Your task to perform on an android device: Open location settings Image 0: 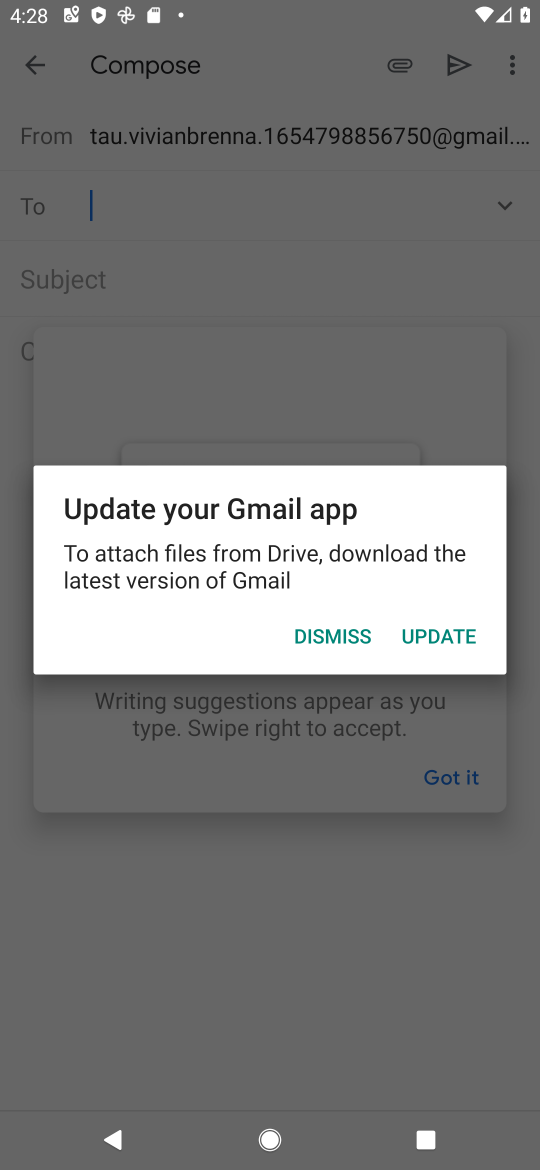
Step 0: press home button
Your task to perform on an android device: Open location settings Image 1: 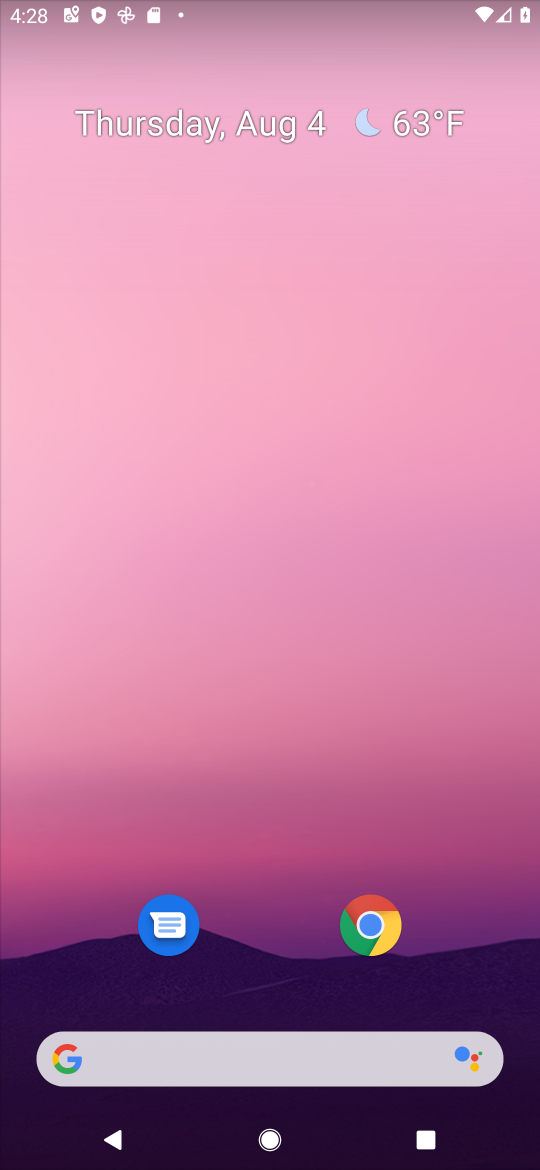
Step 1: drag from (272, 981) to (247, 184)
Your task to perform on an android device: Open location settings Image 2: 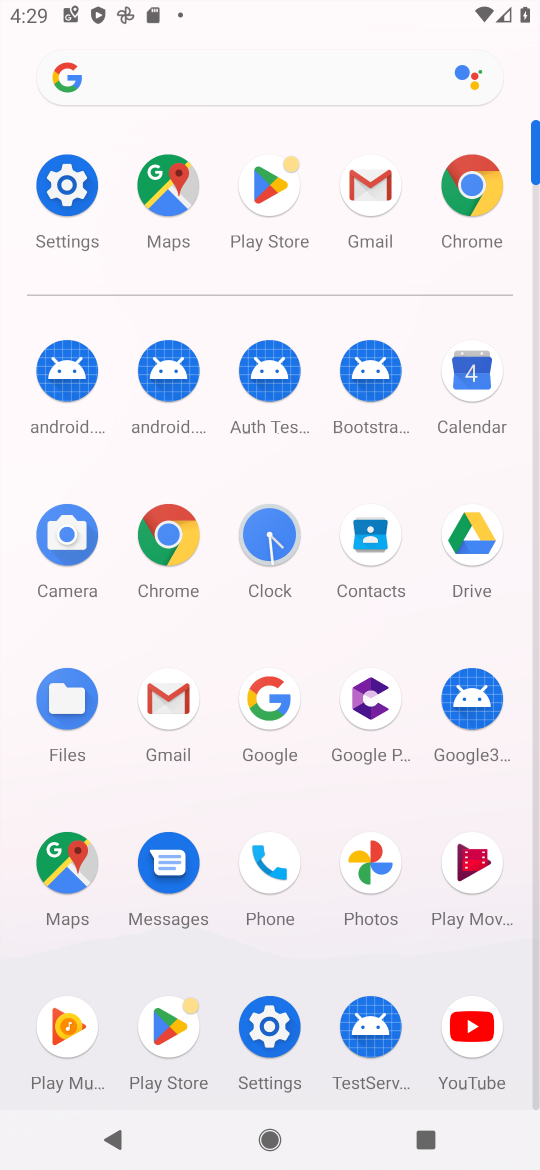
Step 2: click (62, 173)
Your task to perform on an android device: Open location settings Image 3: 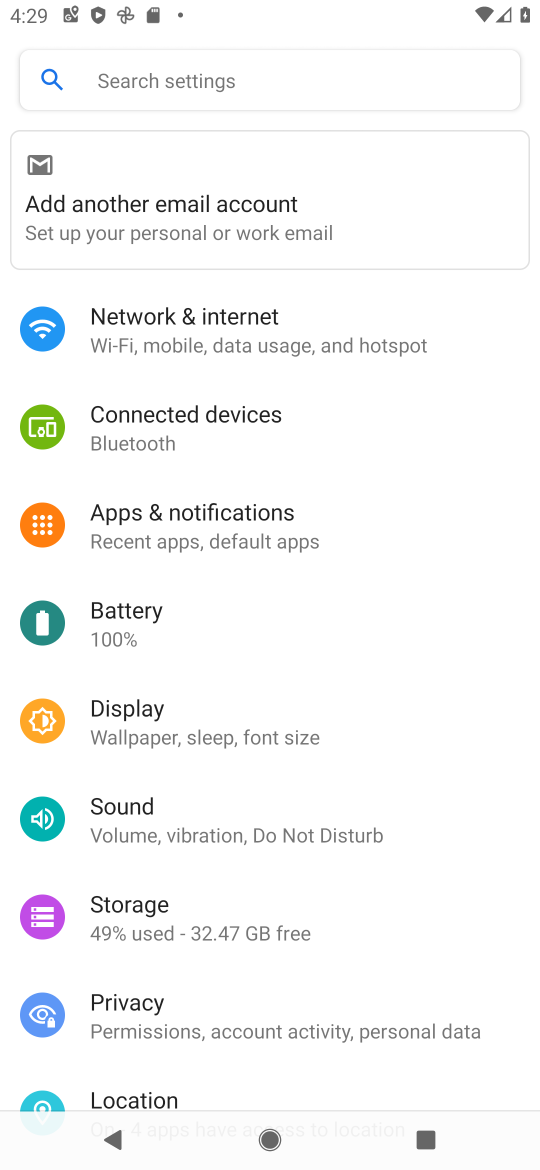
Step 3: click (114, 1105)
Your task to perform on an android device: Open location settings Image 4: 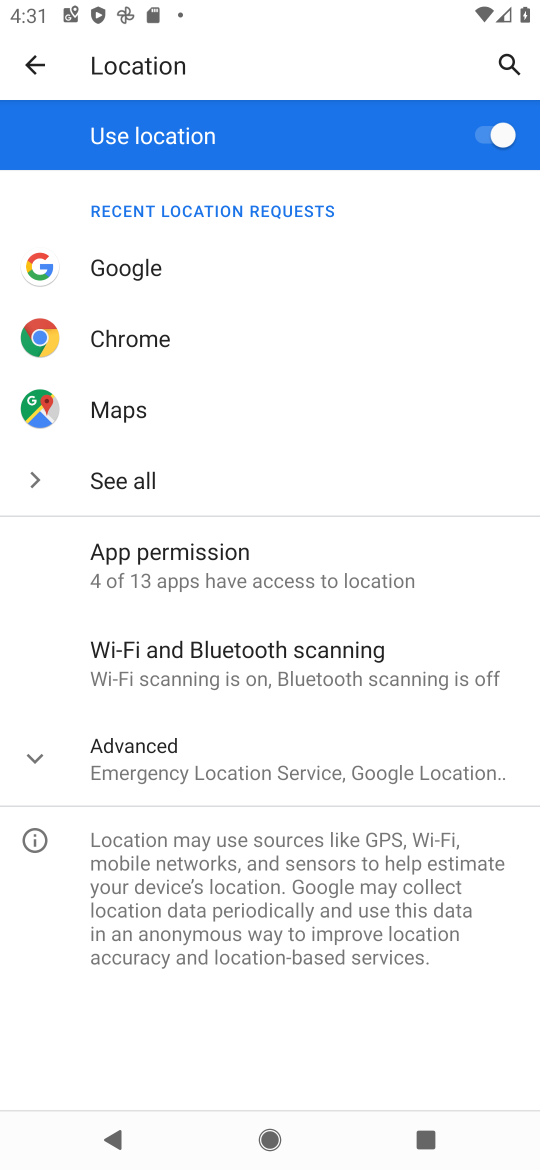
Step 4: task complete